Your task to perform on an android device: open a bookmark in the chrome app Image 0: 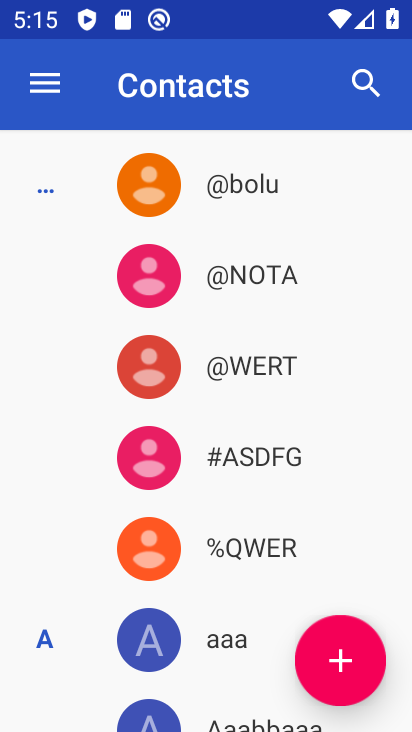
Step 0: press home button
Your task to perform on an android device: open a bookmark in the chrome app Image 1: 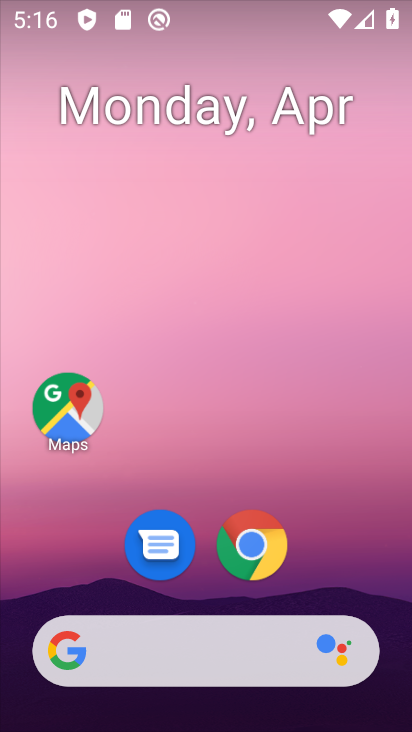
Step 1: drag from (337, 568) to (368, 109)
Your task to perform on an android device: open a bookmark in the chrome app Image 2: 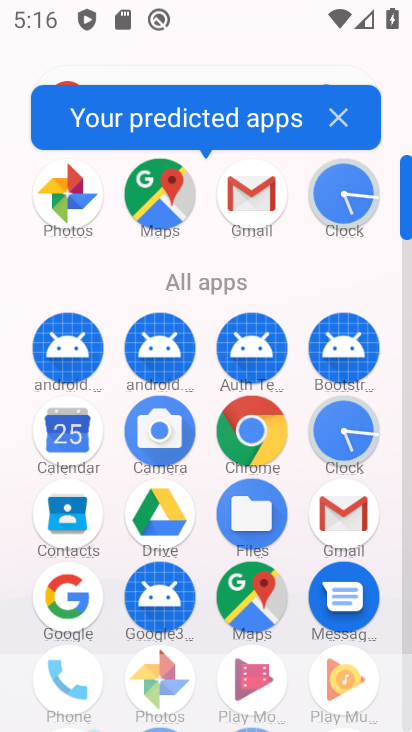
Step 2: click (244, 437)
Your task to perform on an android device: open a bookmark in the chrome app Image 3: 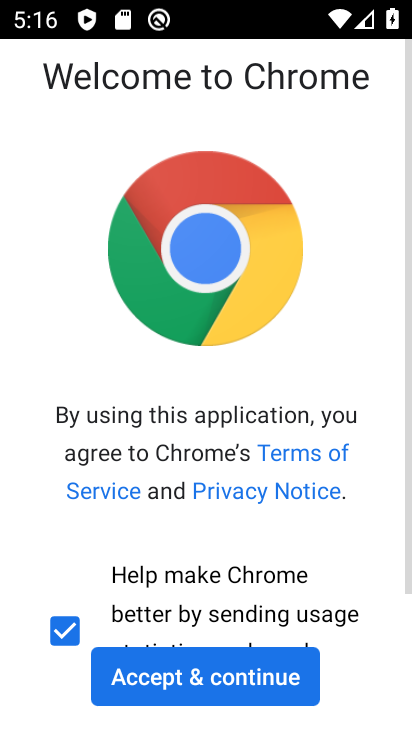
Step 3: click (244, 437)
Your task to perform on an android device: open a bookmark in the chrome app Image 4: 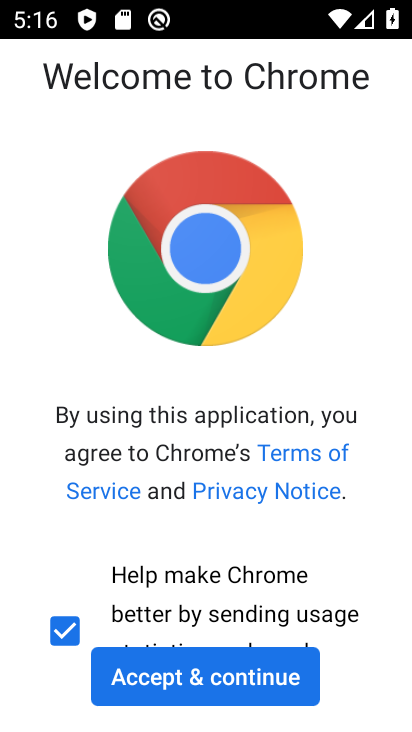
Step 4: click (237, 672)
Your task to perform on an android device: open a bookmark in the chrome app Image 5: 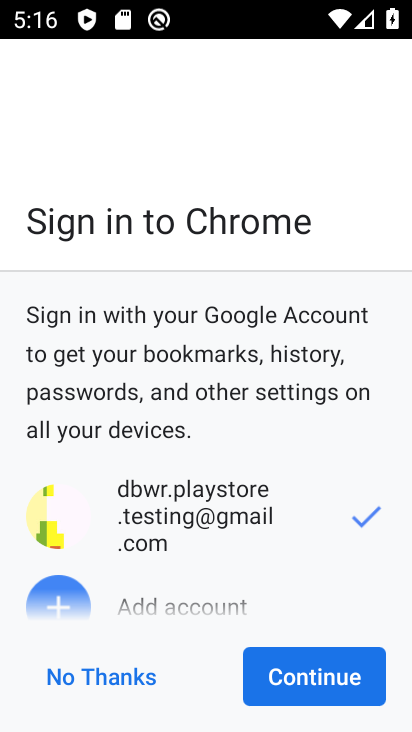
Step 5: click (353, 665)
Your task to perform on an android device: open a bookmark in the chrome app Image 6: 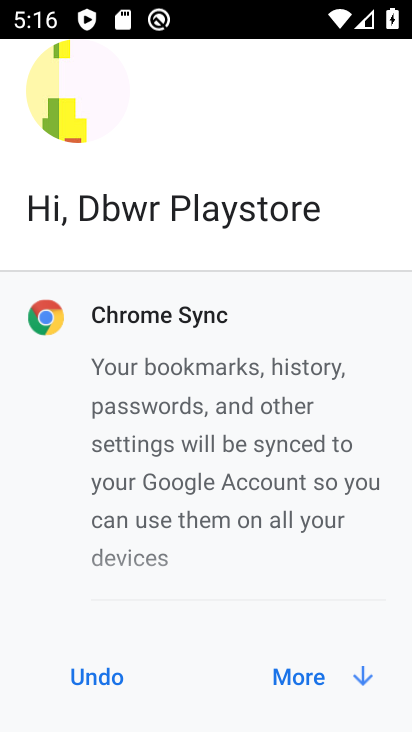
Step 6: click (304, 666)
Your task to perform on an android device: open a bookmark in the chrome app Image 7: 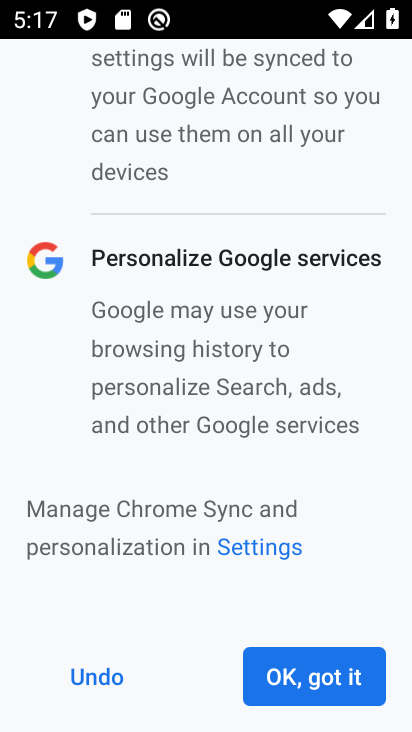
Step 7: click (329, 685)
Your task to perform on an android device: open a bookmark in the chrome app Image 8: 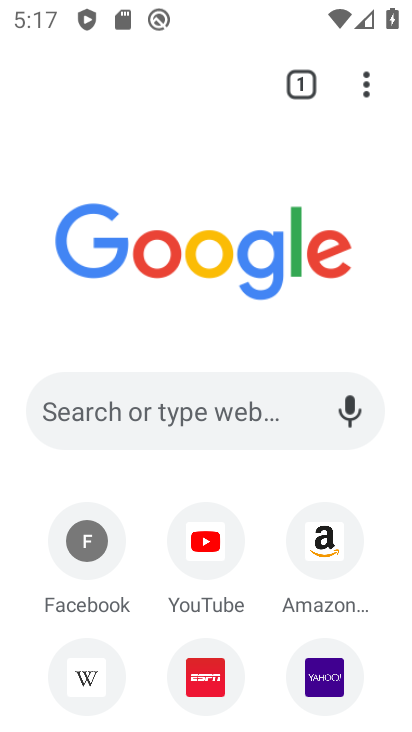
Step 8: task complete